Your task to perform on an android device: Go to wifi settings Image 0: 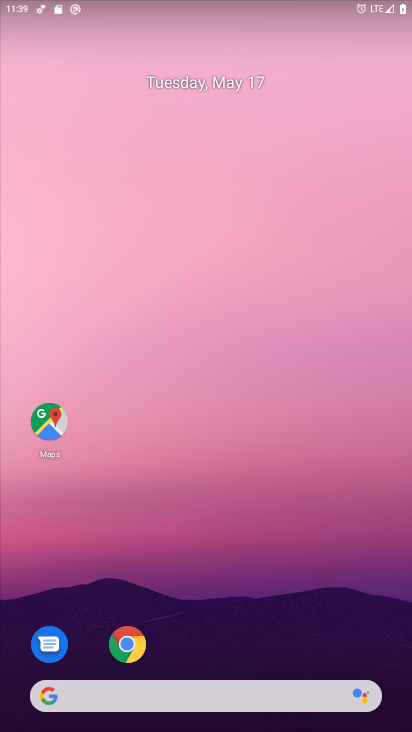
Step 0: press home button
Your task to perform on an android device: Go to wifi settings Image 1: 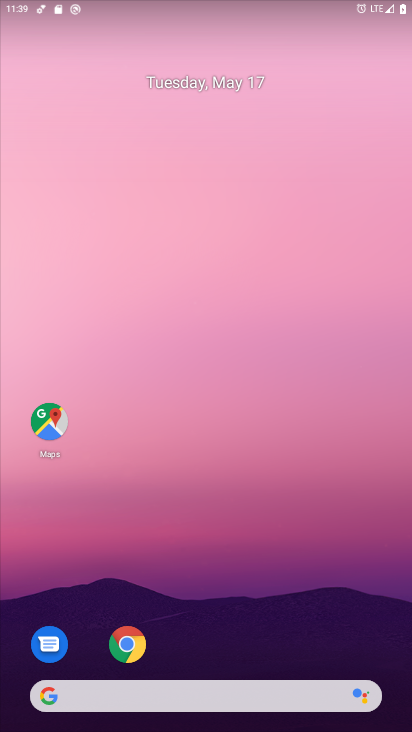
Step 1: drag from (204, 665) to (229, 2)
Your task to perform on an android device: Go to wifi settings Image 2: 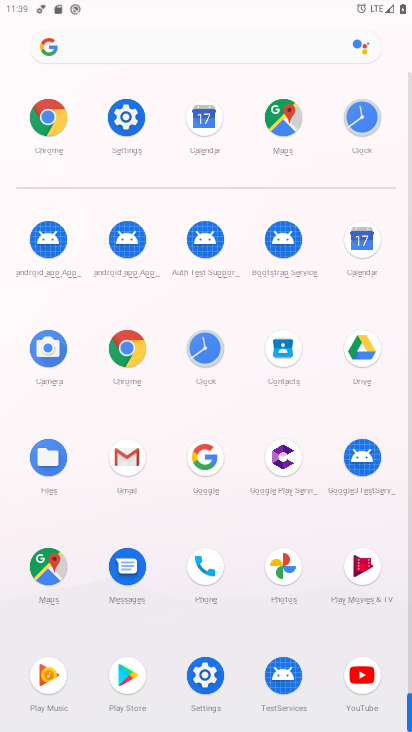
Step 2: click (131, 117)
Your task to perform on an android device: Go to wifi settings Image 3: 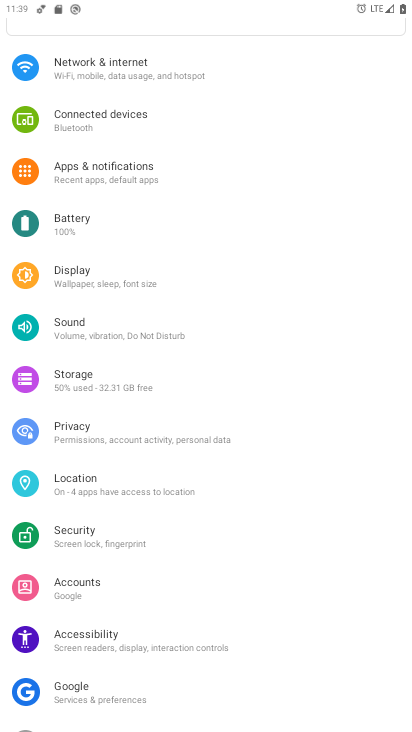
Step 3: click (127, 62)
Your task to perform on an android device: Go to wifi settings Image 4: 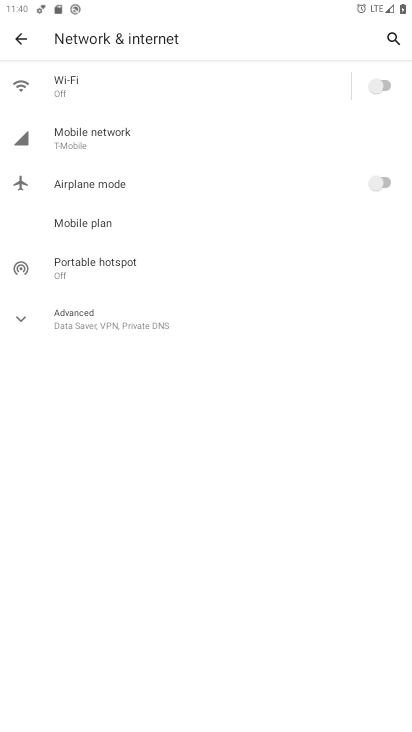
Step 4: click (112, 87)
Your task to perform on an android device: Go to wifi settings Image 5: 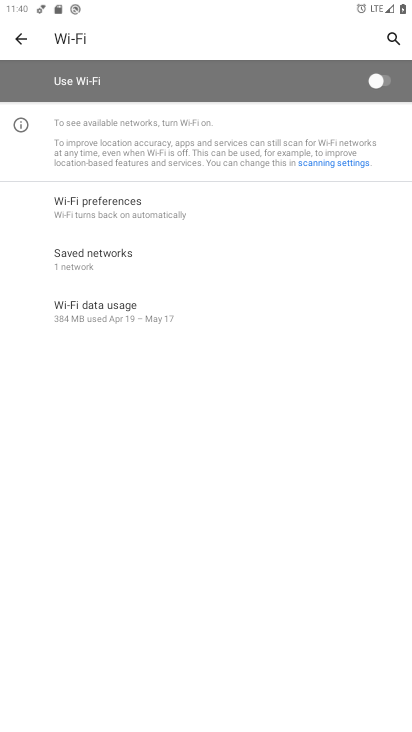
Step 5: click (377, 82)
Your task to perform on an android device: Go to wifi settings Image 6: 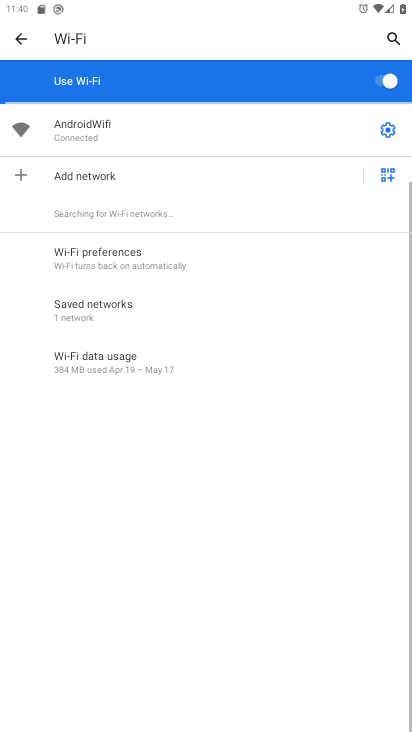
Step 6: task complete